Your task to perform on an android device: set the stopwatch Image 0: 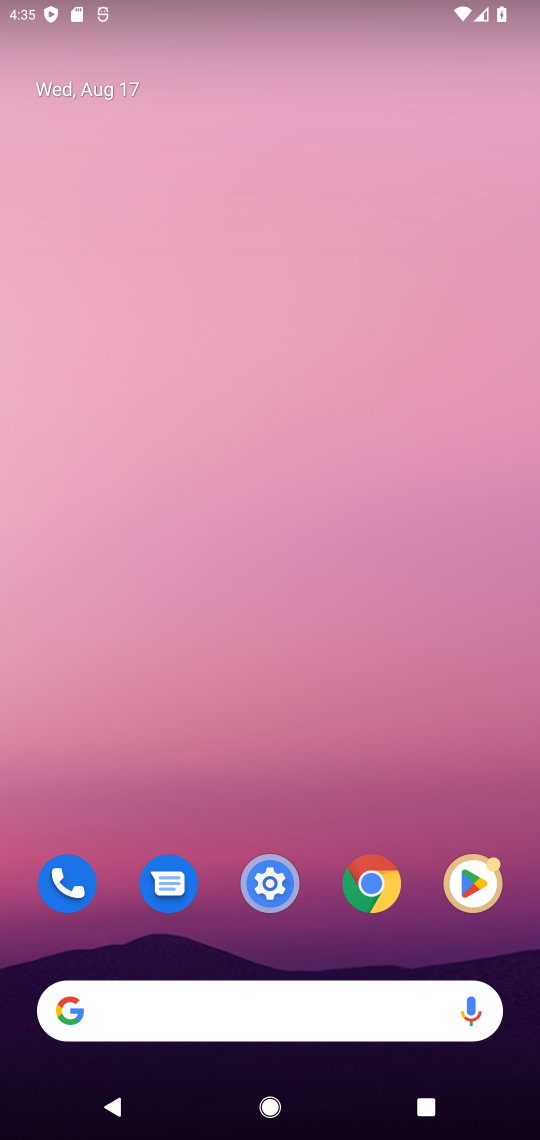
Step 0: drag from (382, 825) to (331, 364)
Your task to perform on an android device: set the stopwatch Image 1: 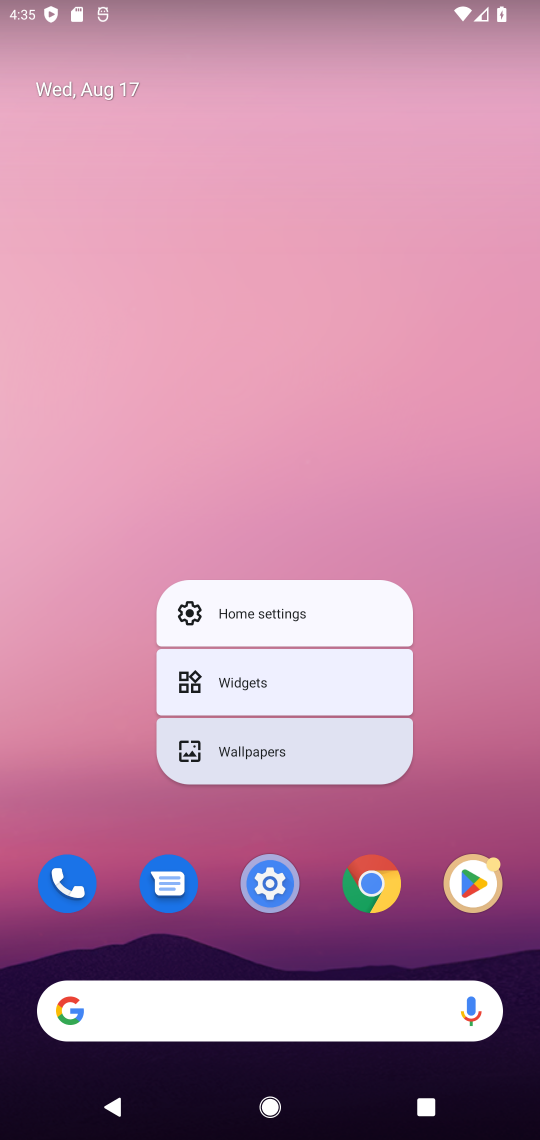
Step 1: click (331, 364)
Your task to perform on an android device: set the stopwatch Image 2: 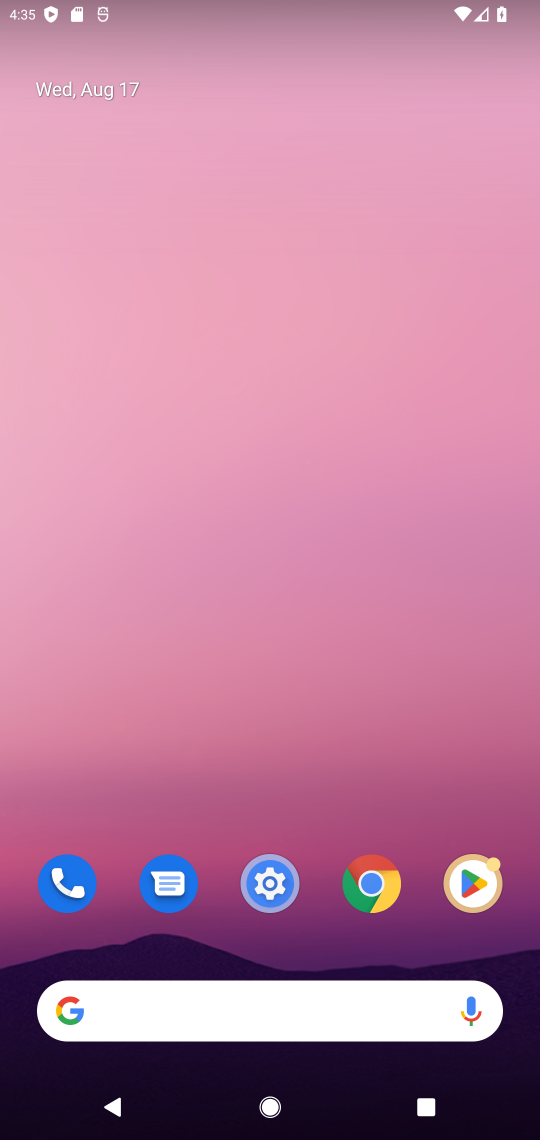
Step 2: drag from (337, 828) to (304, 321)
Your task to perform on an android device: set the stopwatch Image 3: 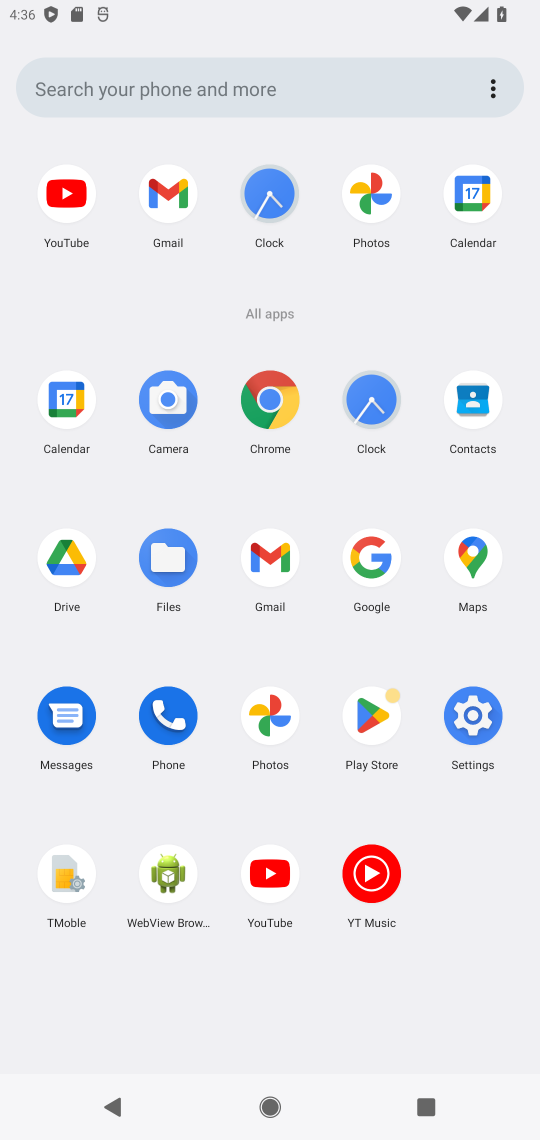
Step 3: click (376, 407)
Your task to perform on an android device: set the stopwatch Image 4: 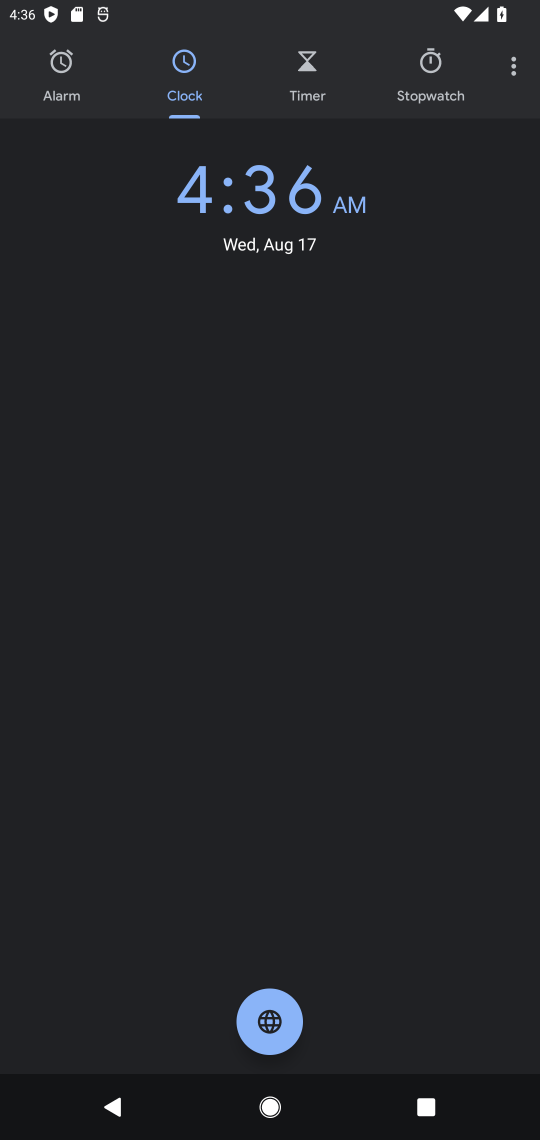
Step 4: click (430, 107)
Your task to perform on an android device: set the stopwatch Image 5: 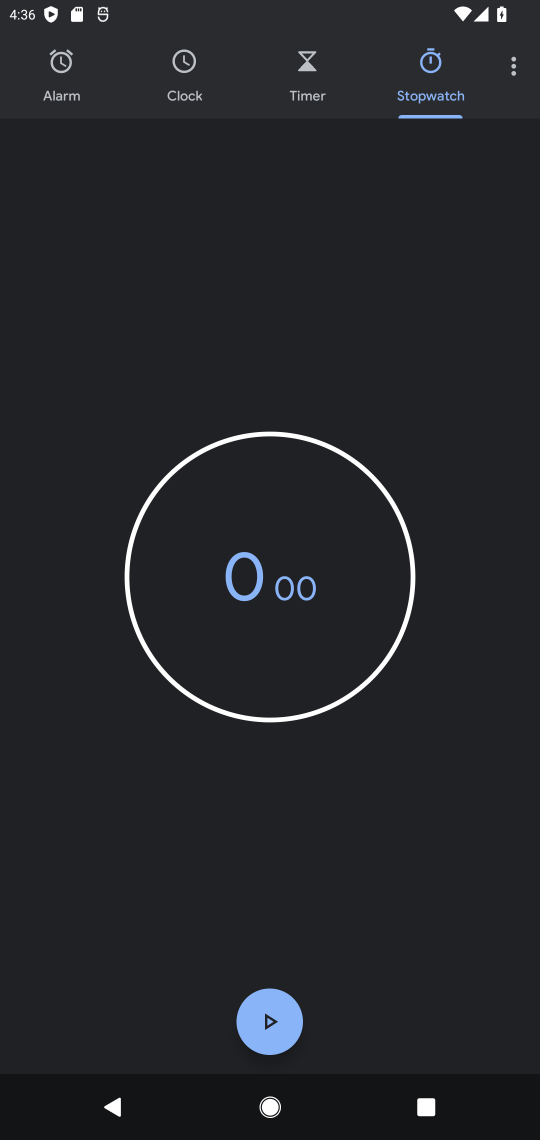
Step 5: click (369, 627)
Your task to perform on an android device: set the stopwatch Image 6: 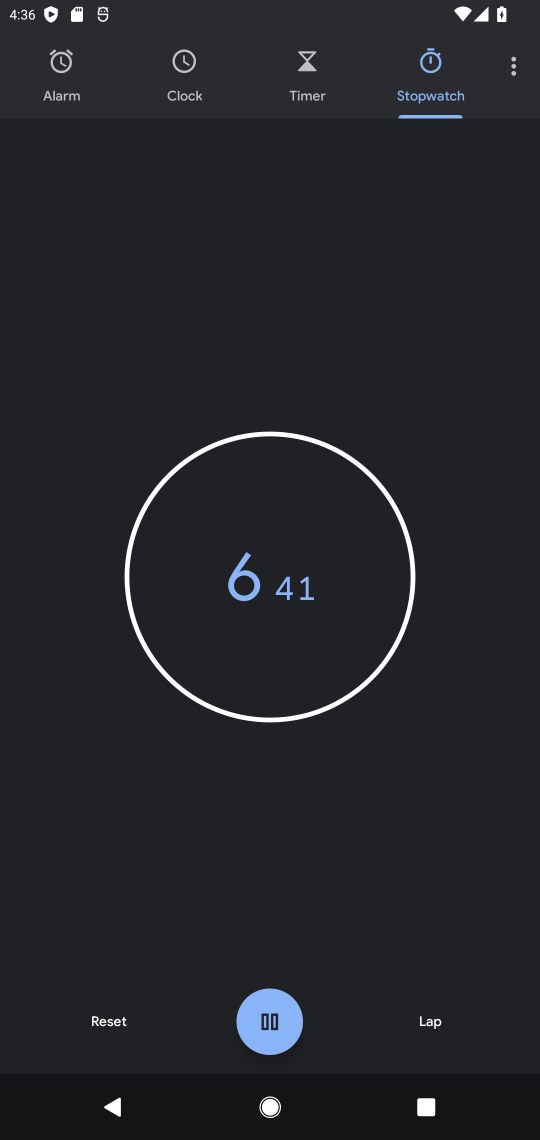
Step 6: task complete